Your task to perform on an android device: check storage Image 0: 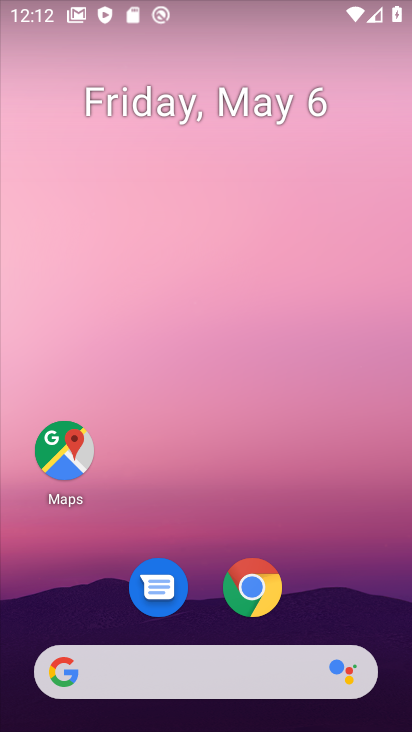
Step 0: drag from (0, 660) to (209, 225)
Your task to perform on an android device: check storage Image 1: 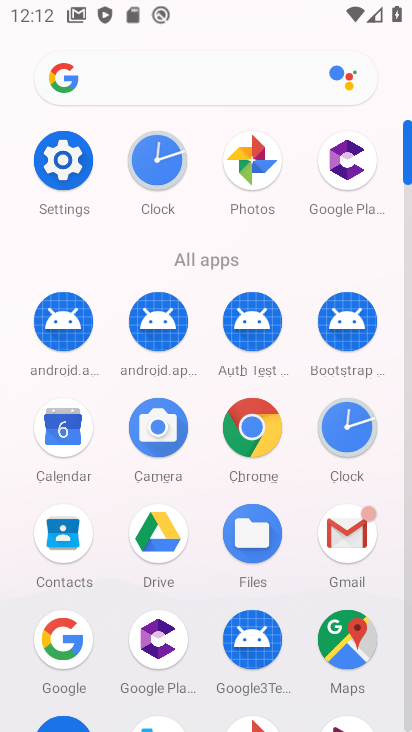
Step 1: click (56, 180)
Your task to perform on an android device: check storage Image 2: 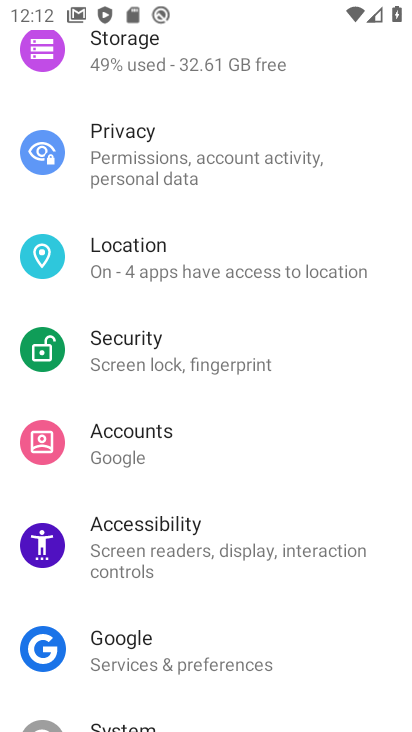
Step 2: drag from (239, 676) to (316, 257)
Your task to perform on an android device: check storage Image 3: 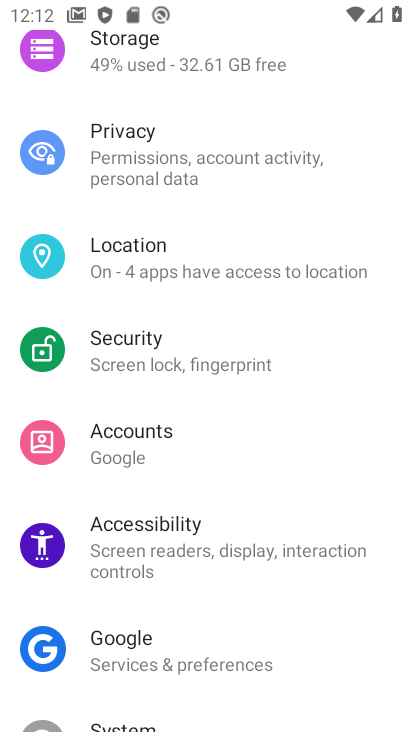
Step 3: drag from (240, 664) to (335, 276)
Your task to perform on an android device: check storage Image 4: 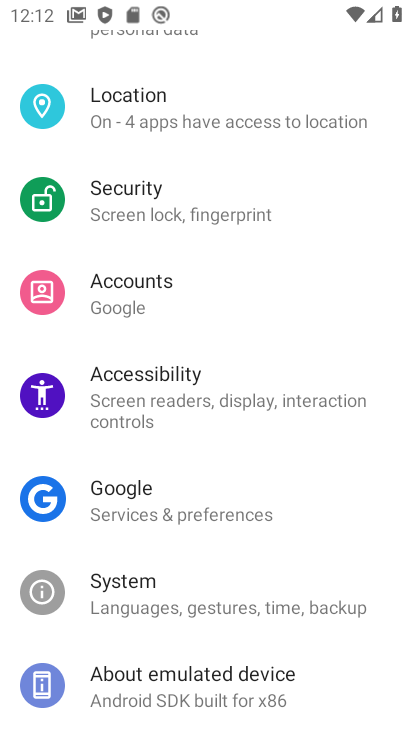
Step 4: drag from (198, 669) to (284, 343)
Your task to perform on an android device: check storage Image 5: 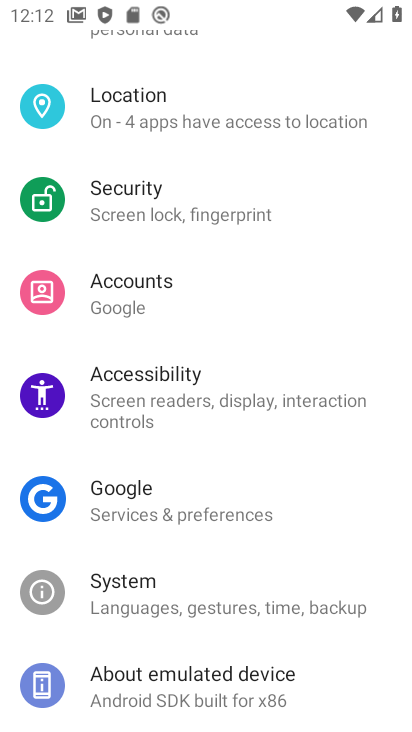
Step 5: drag from (271, 191) to (238, 548)
Your task to perform on an android device: check storage Image 6: 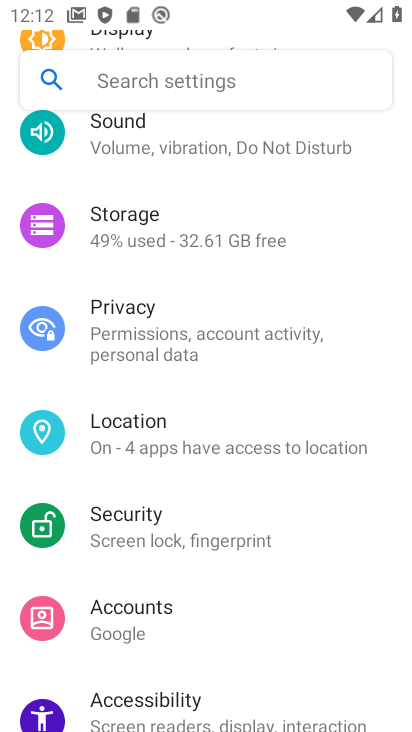
Step 6: drag from (207, 666) to (295, 176)
Your task to perform on an android device: check storage Image 7: 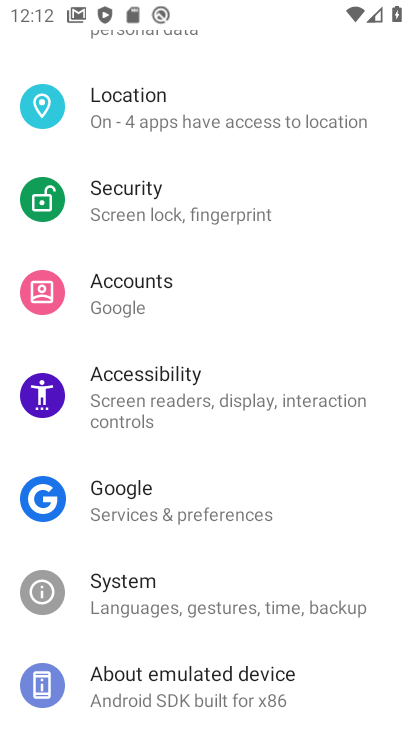
Step 7: drag from (298, 124) to (236, 479)
Your task to perform on an android device: check storage Image 8: 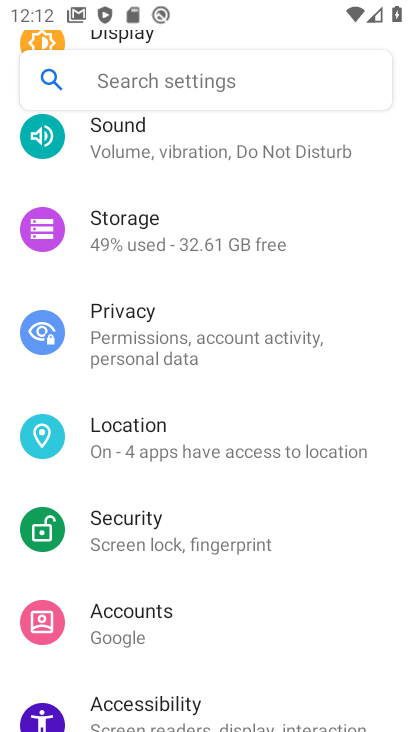
Step 8: click (234, 239)
Your task to perform on an android device: check storage Image 9: 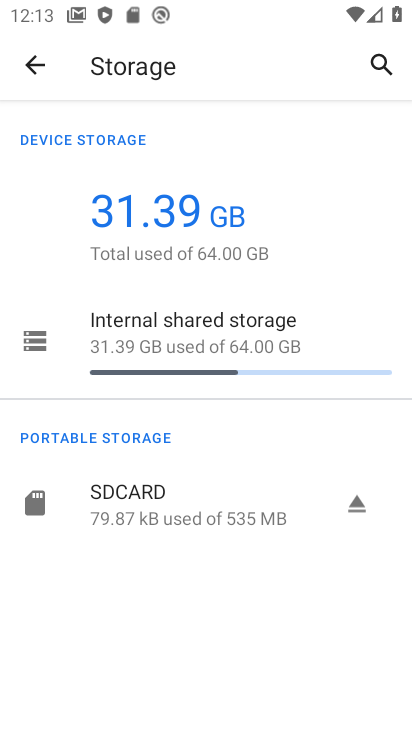
Step 9: task complete